Your task to perform on an android device: Play the last video I watched on Youtube Image 0: 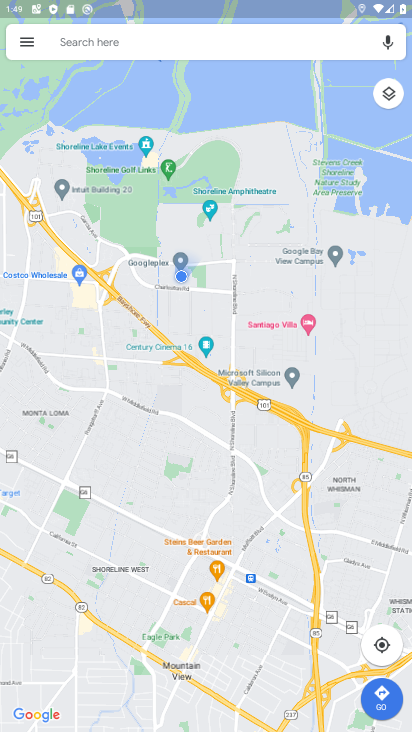
Step 0: press home button
Your task to perform on an android device: Play the last video I watched on Youtube Image 1: 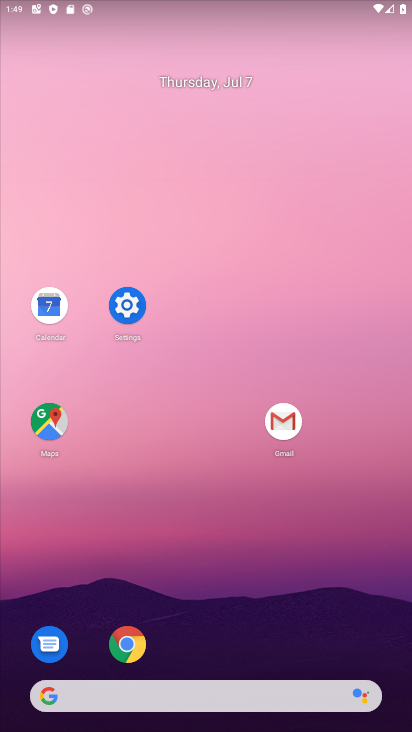
Step 1: drag from (389, 682) to (266, 266)
Your task to perform on an android device: Play the last video I watched on Youtube Image 2: 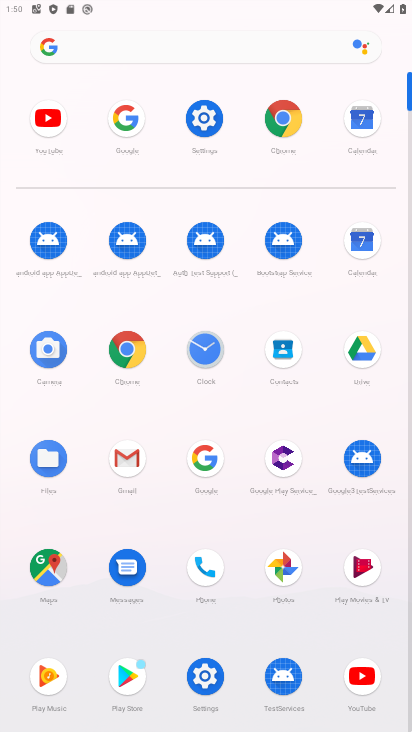
Step 2: click (51, 130)
Your task to perform on an android device: Play the last video I watched on Youtube Image 3: 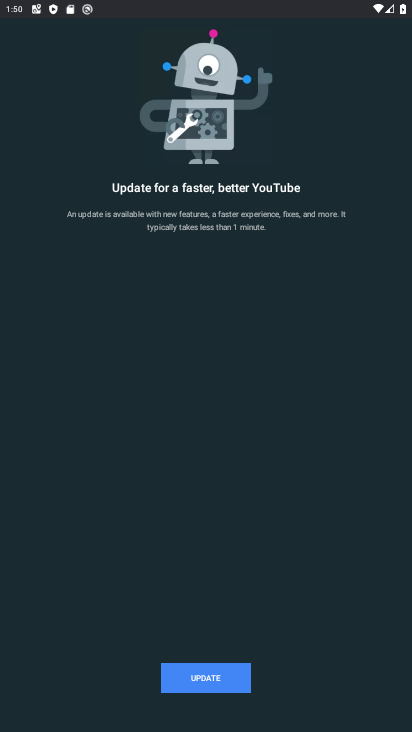
Step 3: click (248, 687)
Your task to perform on an android device: Play the last video I watched on Youtube Image 4: 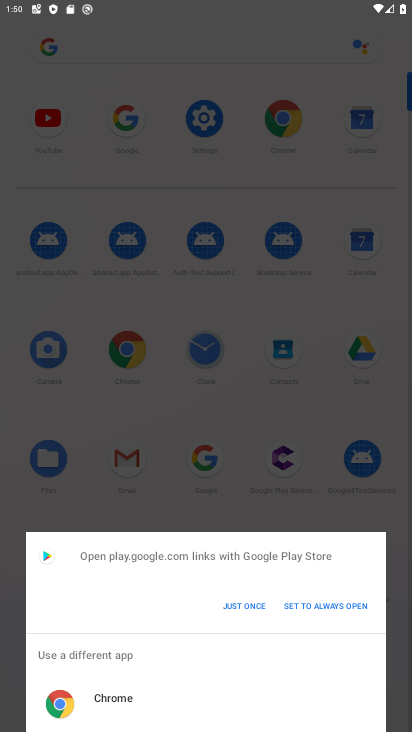
Step 4: click (247, 603)
Your task to perform on an android device: Play the last video I watched on Youtube Image 5: 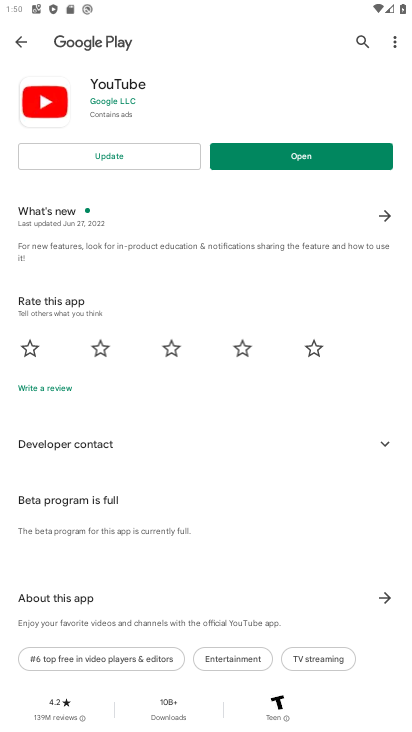
Step 5: click (81, 155)
Your task to perform on an android device: Play the last video I watched on Youtube Image 6: 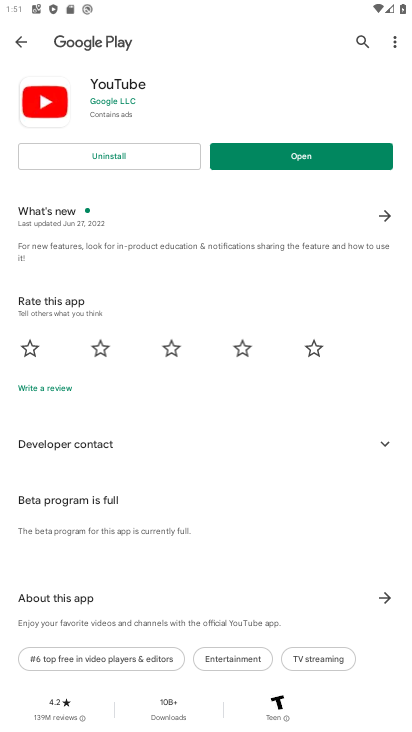
Step 6: click (256, 144)
Your task to perform on an android device: Play the last video I watched on Youtube Image 7: 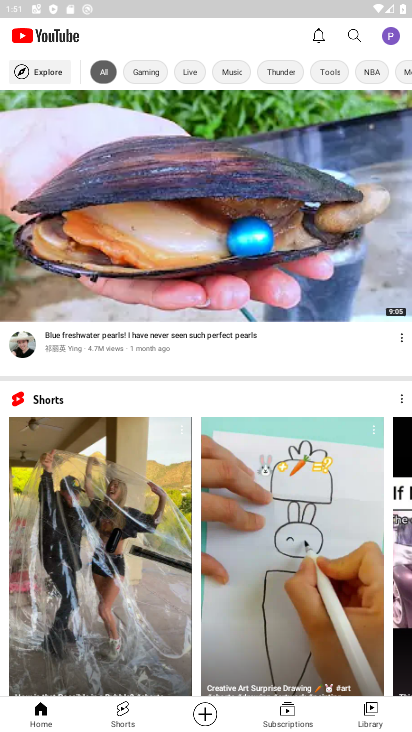
Step 7: click (366, 710)
Your task to perform on an android device: Play the last video I watched on Youtube Image 8: 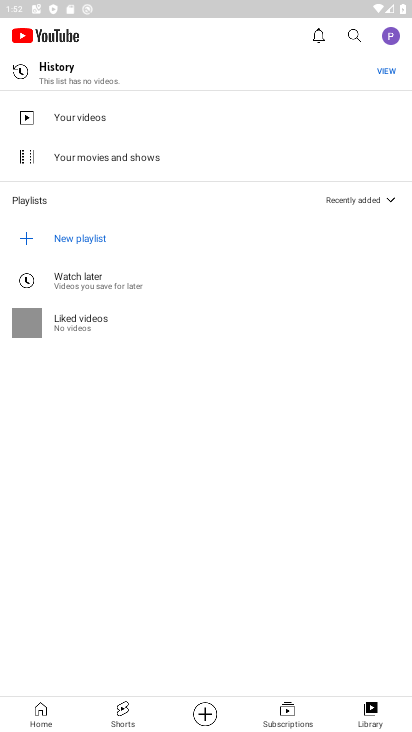
Step 8: click (67, 82)
Your task to perform on an android device: Play the last video I watched on Youtube Image 9: 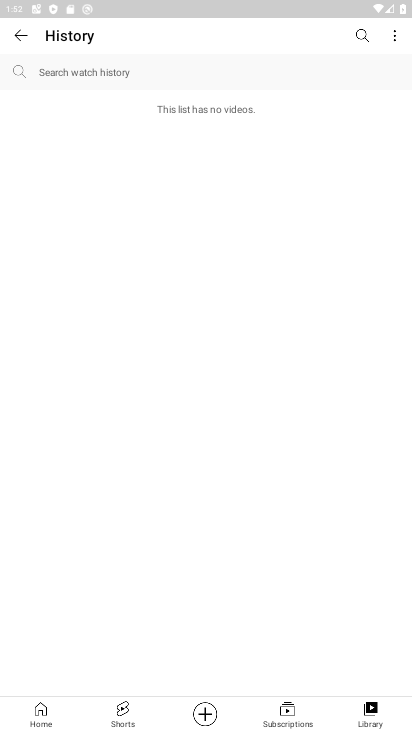
Step 9: task complete